Your task to perform on an android device: Open accessibility settings Image 0: 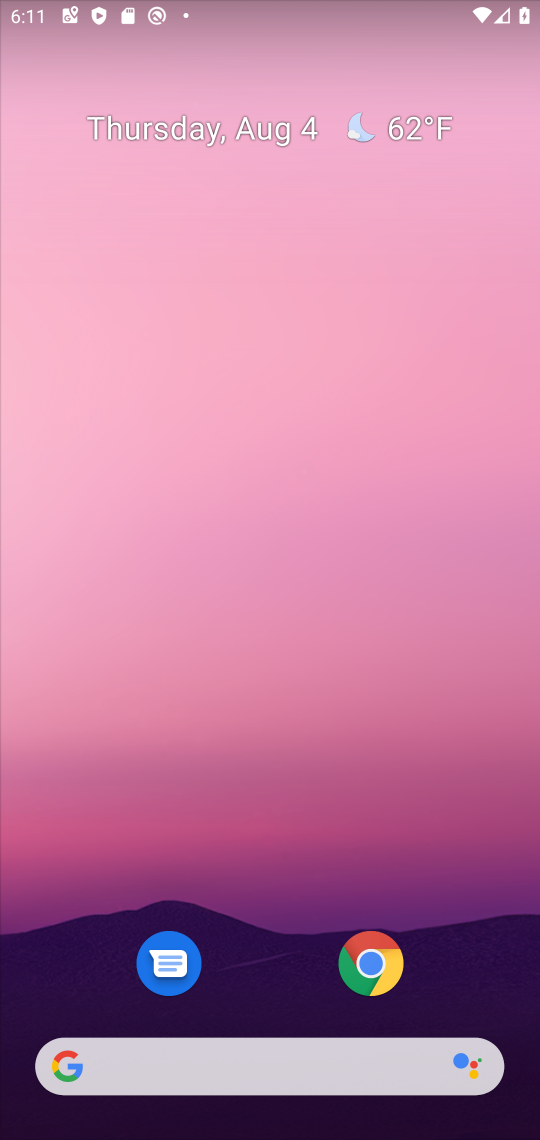
Step 0: drag from (335, 885) to (328, 67)
Your task to perform on an android device: Open accessibility settings Image 1: 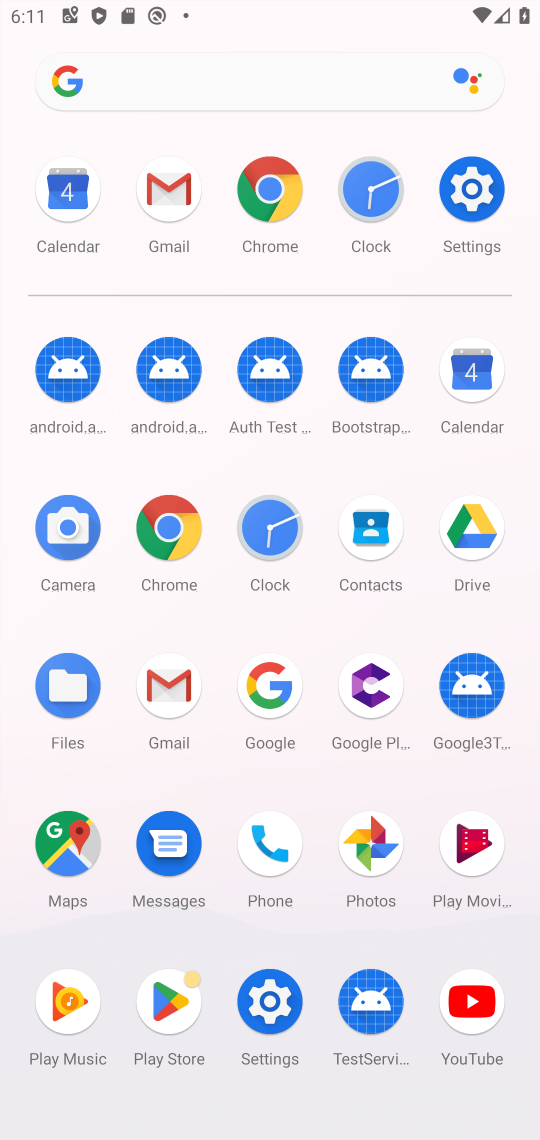
Step 1: click (466, 181)
Your task to perform on an android device: Open accessibility settings Image 2: 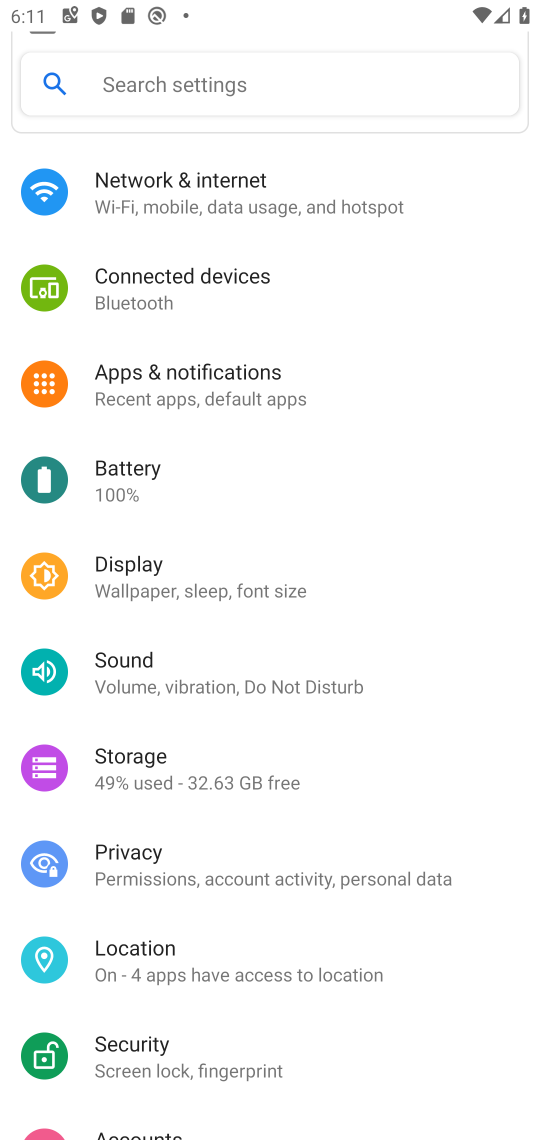
Step 2: drag from (324, 983) to (282, 300)
Your task to perform on an android device: Open accessibility settings Image 3: 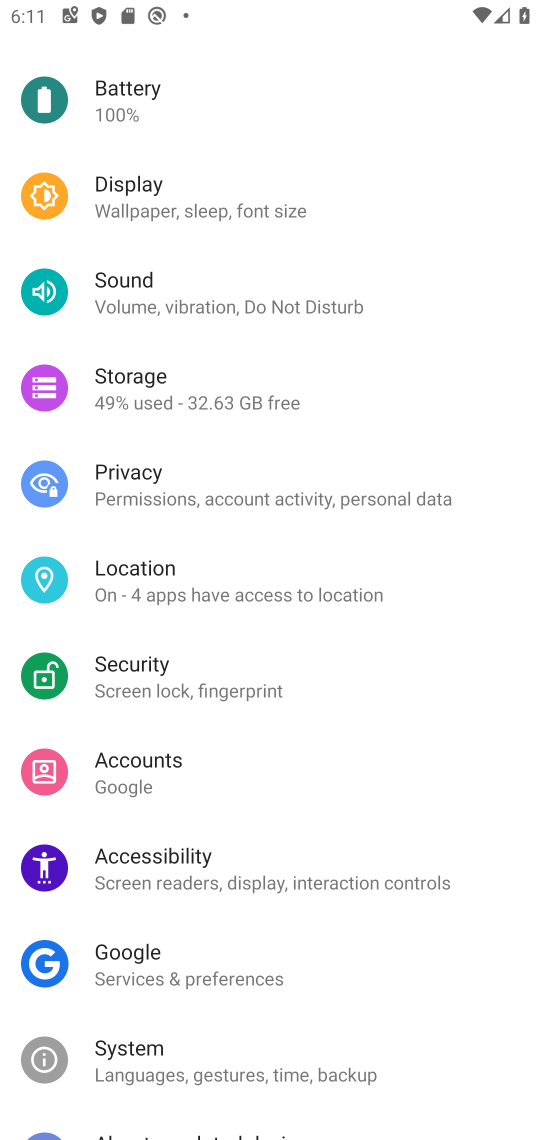
Step 3: click (136, 851)
Your task to perform on an android device: Open accessibility settings Image 4: 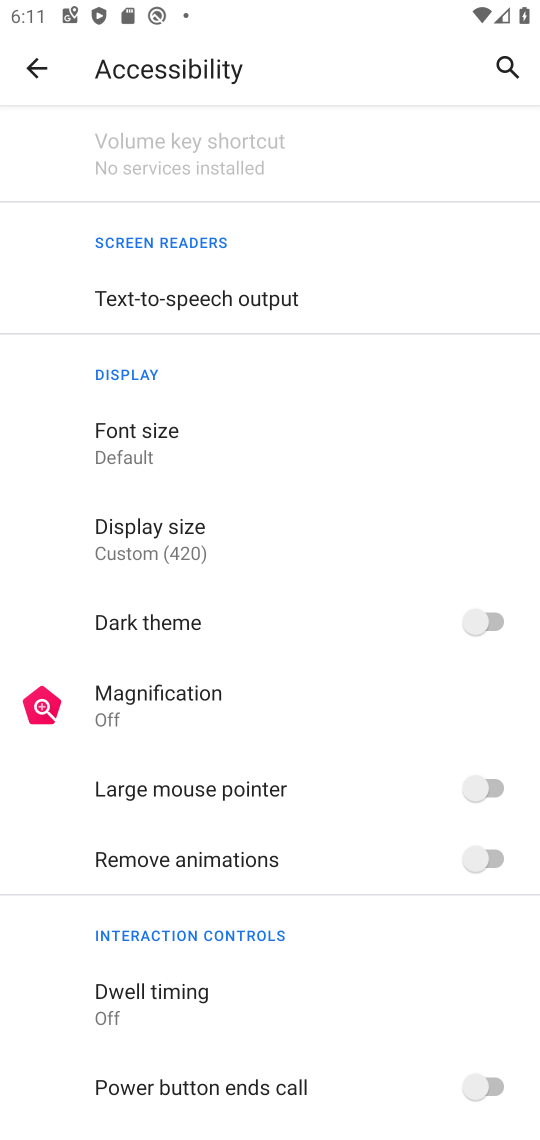
Step 4: task complete